Your task to perform on an android device: Set the phone to "Do not disturb". Image 0: 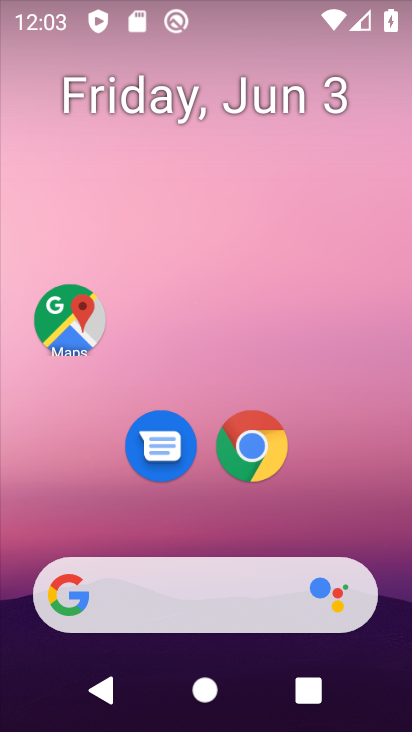
Step 0: drag from (269, 692) to (212, 141)
Your task to perform on an android device: Set the phone to "Do not disturb". Image 1: 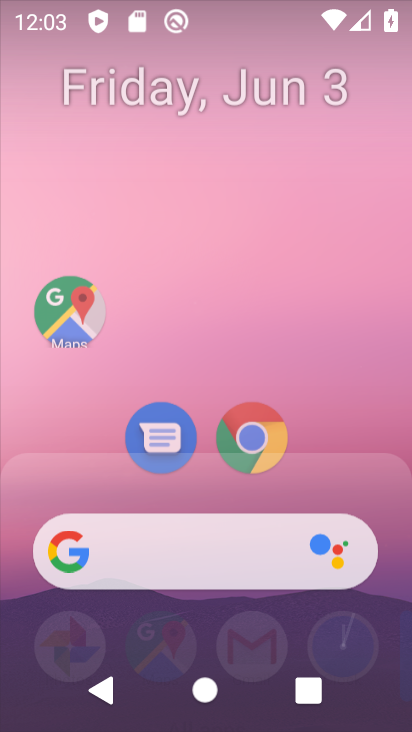
Step 1: drag from (260, 539) to (244, 149)
Your task to perform on an android device: Set the phone to "Do not disturb". Image 2: 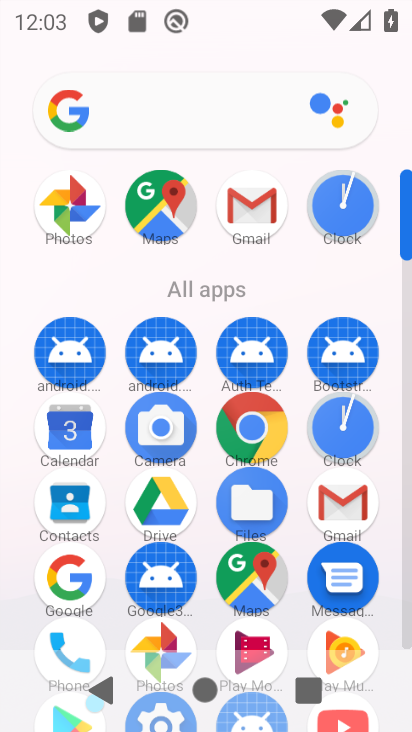
Step 2: drag from (254, 549) to (201, 160)
Your task to perform on an android device: Set the phone to "Do not disturb". Image 3: 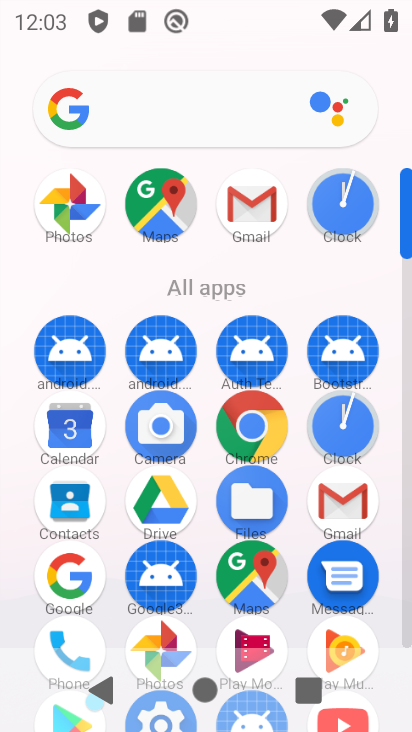
Step 3: drag from (264, 559) to (228, 224)
Your task to perform on an android device: Set the phone to "Do not disturb". Image 4: 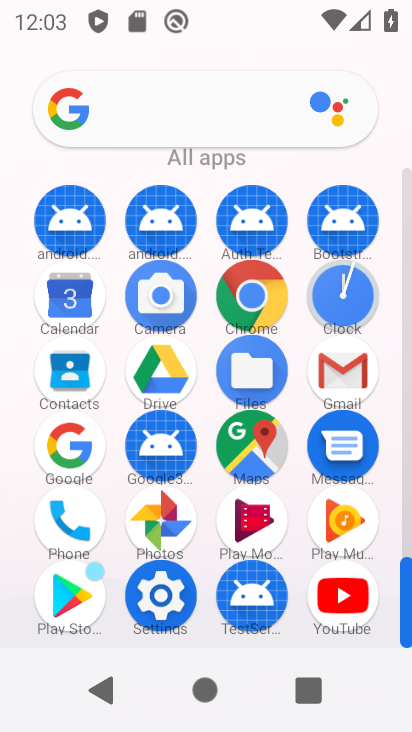
Step 4: drag from (305, 522) to (229, 173)
Your task to perform on an android device: Set the phone to "Do not disturb". Image 5: 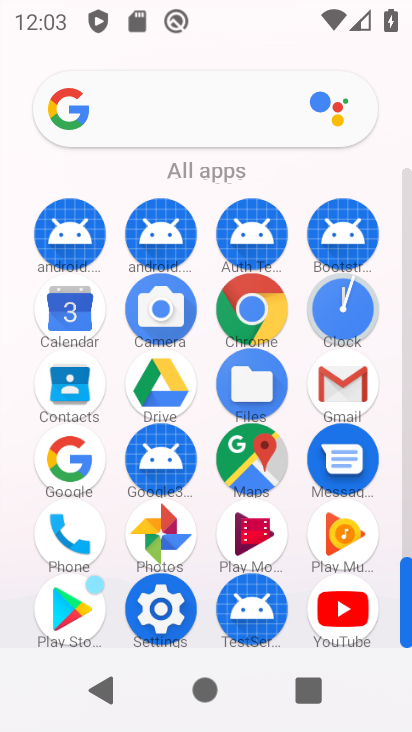
Step 5: click (160, 595)
Your task to perform on an android device: Set the phone to "Do not disturb". Image 6: 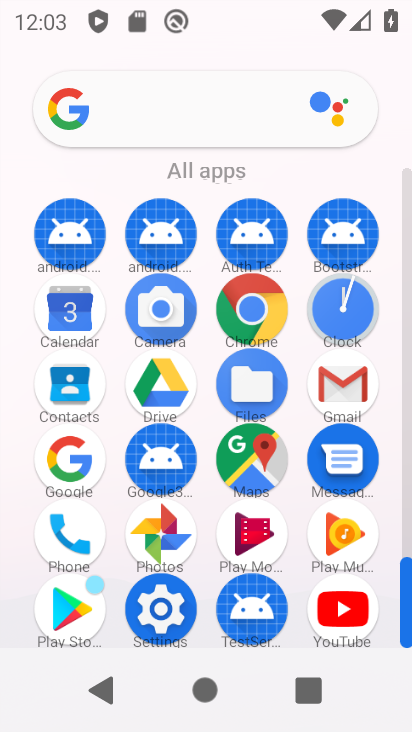
Step 6: click (160, 595)
Your task to perform on an android device: Set the phone to "Do not disturb". Image 7: 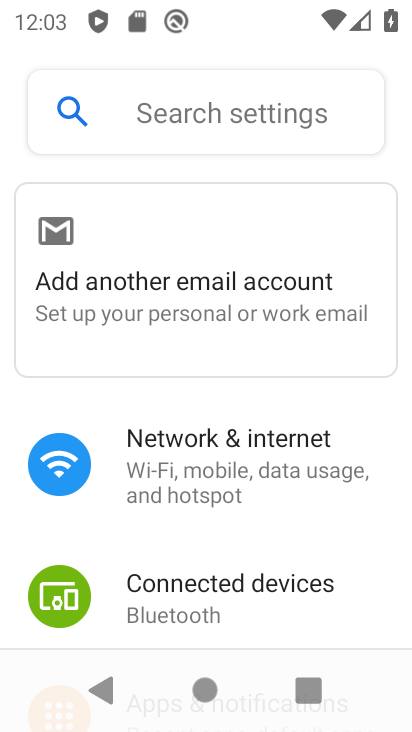
Step 7: drag from (229, 424) to (212, 143)
Your task to perform on an android device: Set the phone to "Do not disturb". Image 8: 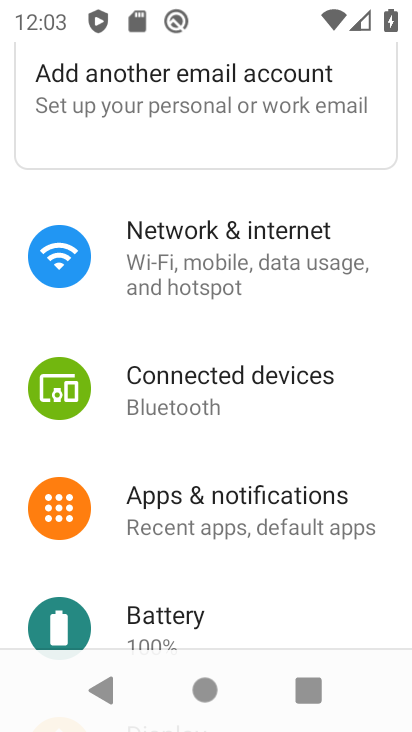
Step 8: drag from (174, 412) to (193, 246)
Your task to perform on an android device: Set the phone to "Do not disturb". Image 9: 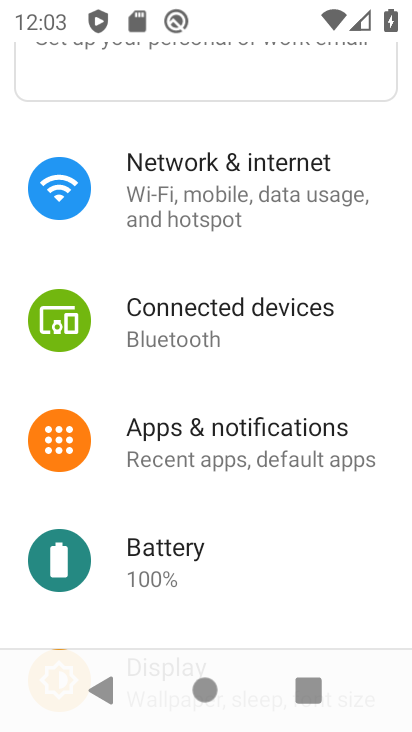
Step 9: drag from (193, 462) to (186, 359)
Your task to perform on an android device: Set the phone to "Do not disturb". Image 10: 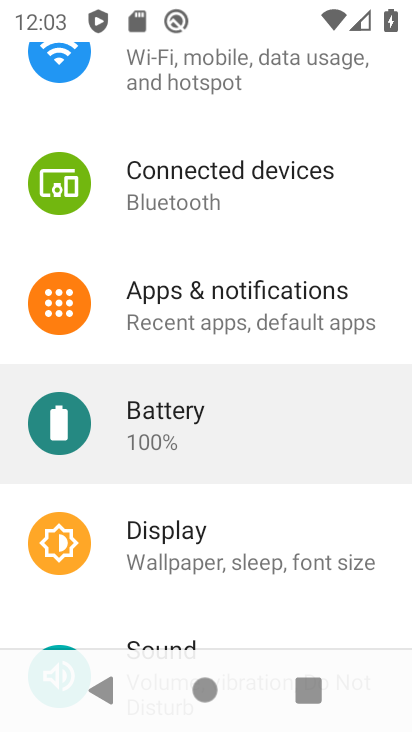
Step 10: drag from (153, 470) to (177, 259)
Your task to perform on an android device: Set the phone to "Do not disturb". Image 11: 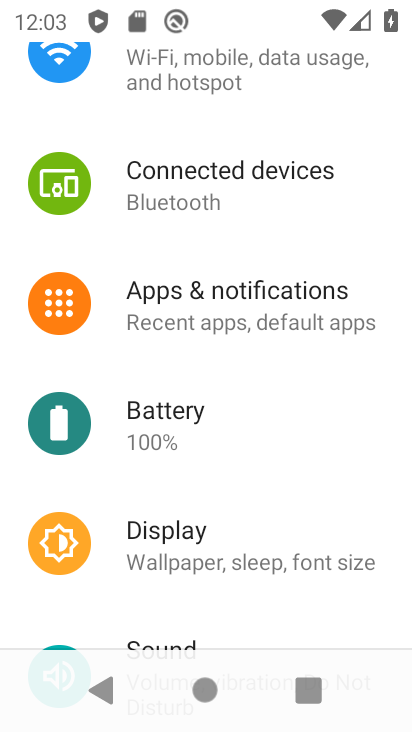
Step 11: drag from (242, 398) to (248, 232)
Your task to perform on an android device: Set the phone to "Do not disturb". Image 12: 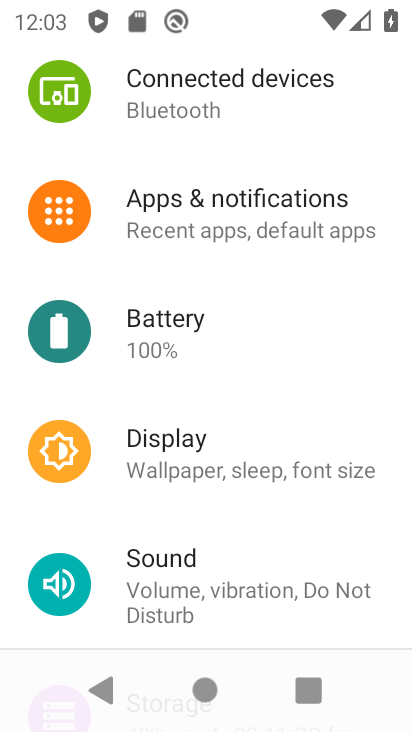
Step 12: drag from (237, 441) to (243, 182)
Your task to perform on an android device: Set the phone to "Do not disturb". Image 13: 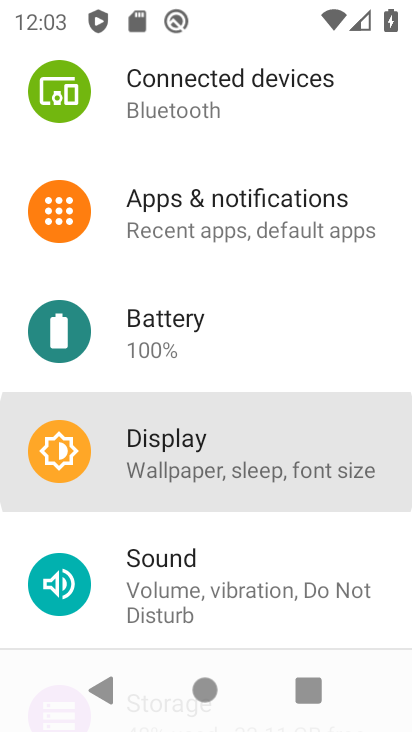
Step 13: drag from (235, 375) to (247, 235)
Your task to perform on an android device: Set the phone to "Do not disturb". Image 14: 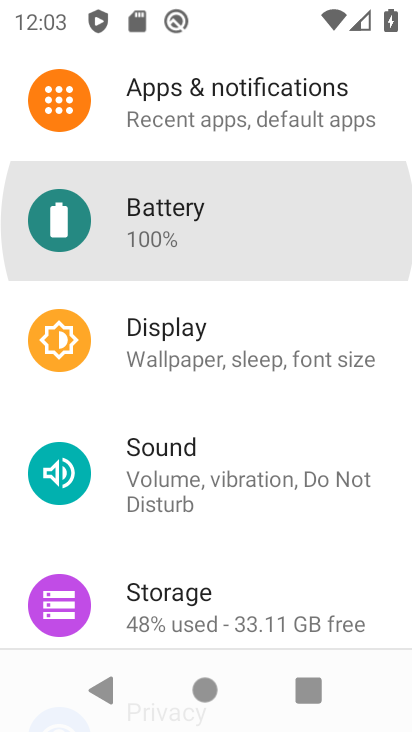
Step 14: drag from (219, 397) to (210, 240)
Your task to perform on an android device: Set the phone to "Do not disturb". Image 15: 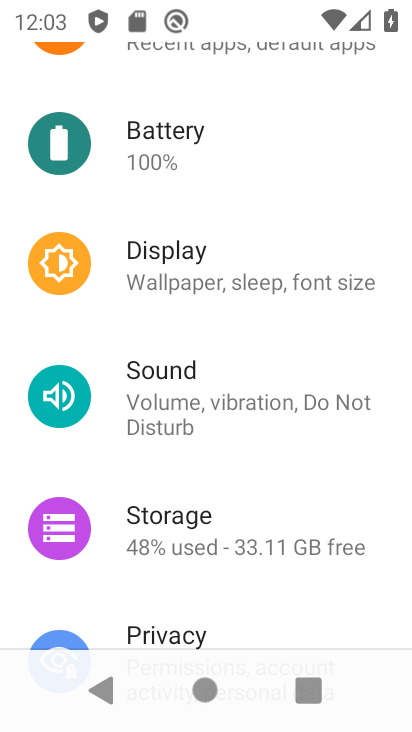
Step 15: click (162, 420)
Your task to perform on an android device: Set the phone to "Do not disturb". Image 16: 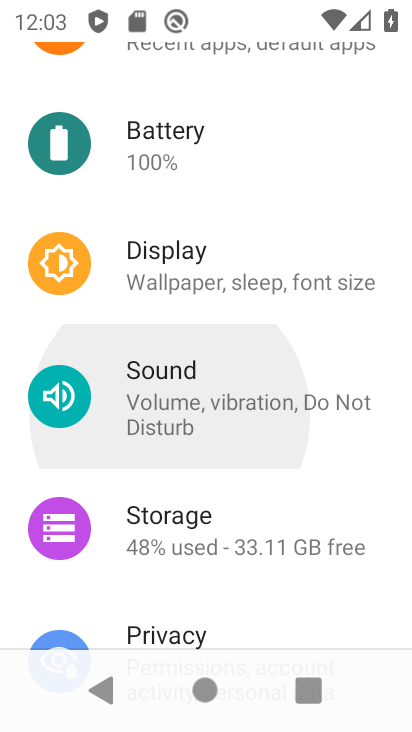
Step 16: click (163, 420)
Your task to perform on an android device: Set the phone to "Do not disturb". Image 17: 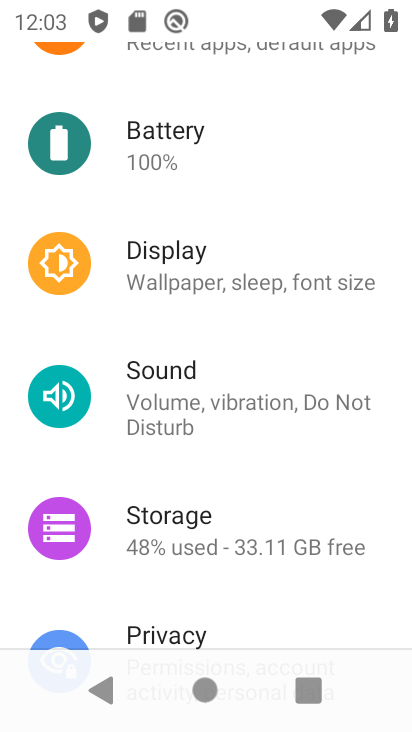
Step 17: click (163, 420)
Your task to perform on an android device: Set the phone to "Do not disturb". Image 18: 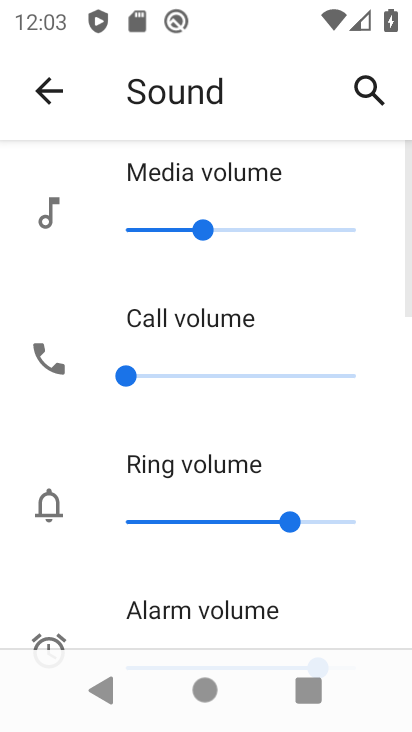
Step 18: drag from (179, 612) to (178, 203)
Your task to perform on an android device: Set the phone to "Do not disturb". Image 19: 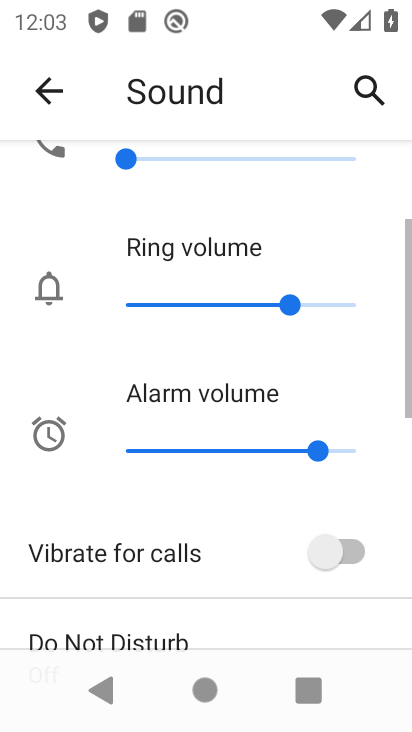
Step 19: drag from (201, 515) to (202, 245)
Your task to perform on an android device: Set the phone to "Do not disturb". Image 20: 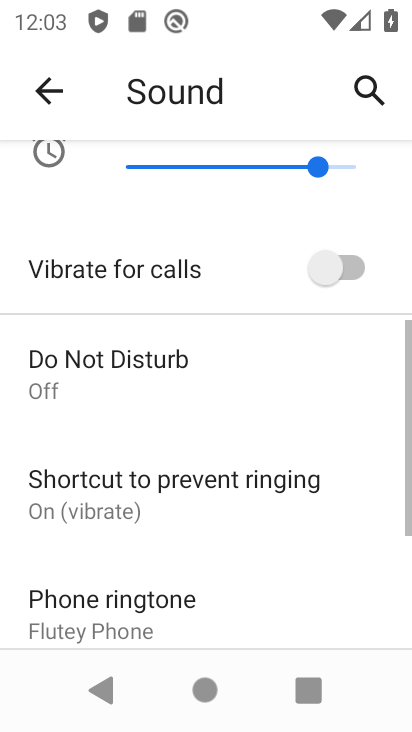
Step 20: drag from (193, 437) to (196, 211)
Your task to perform on an android device: Set the phone to "Do not disturb". Image 21: 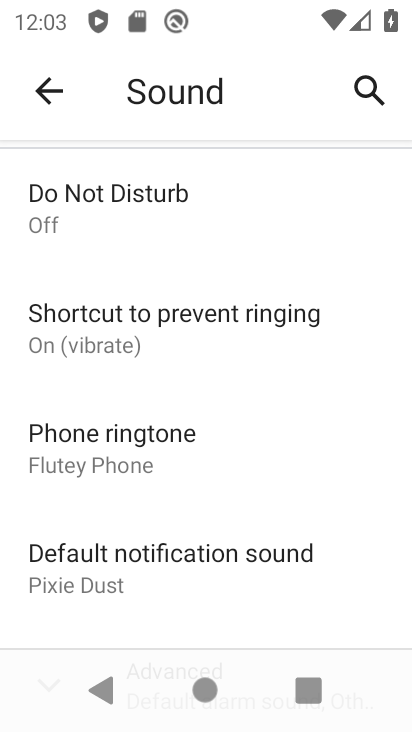
Step 21: click (45, 211)
Your task to perform on an android device: Set the phone to "Do not disturb". Image 22: 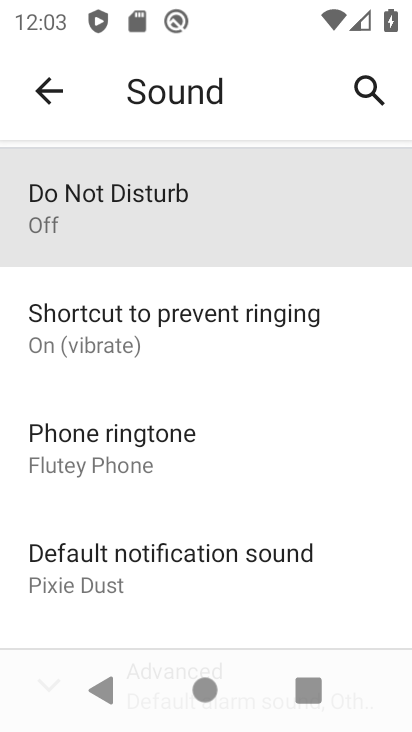
Step 22: click (45, 211)
Your task to perform on an android device: Set the phone to "Do not disturb". Image 23: 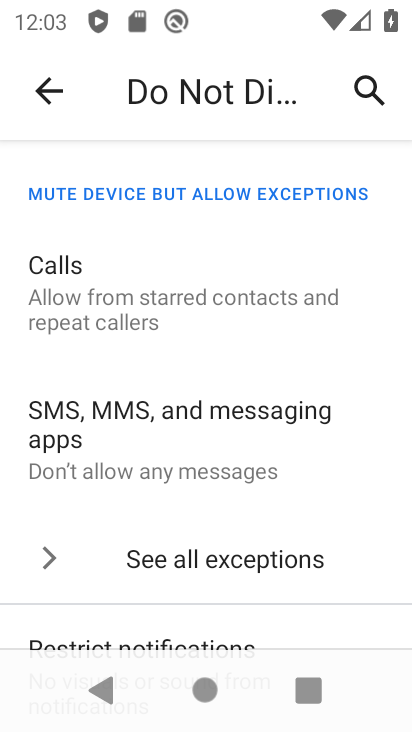
Step 23: drag from (197, 401) to (206, 227)
Your task to perform on an android device: Set the phone to "Do not disturb". Image 24: 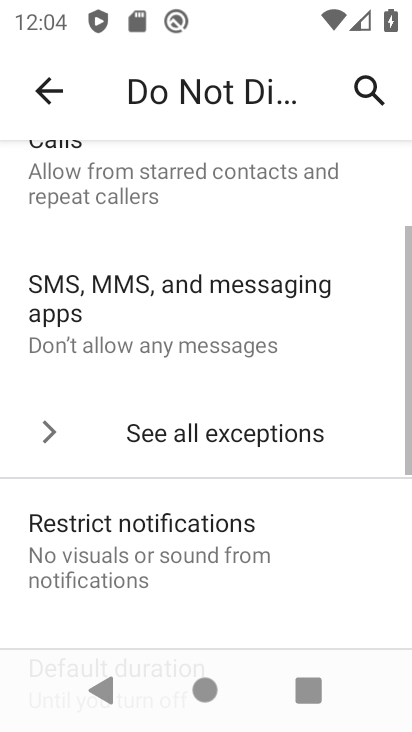
Step 24: drag from (192, 421) to (206, 143)
Your task to perform on an android device: Set the phone to "Do not disturb". Image 25: 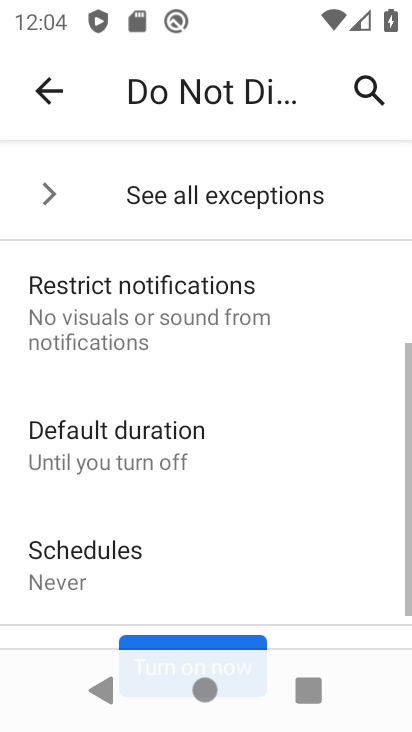
Step 25: drag from (187, 415) to (200, 201)
Your task to perform on an android device: Set the phone to "Do not disturb". Image 26: 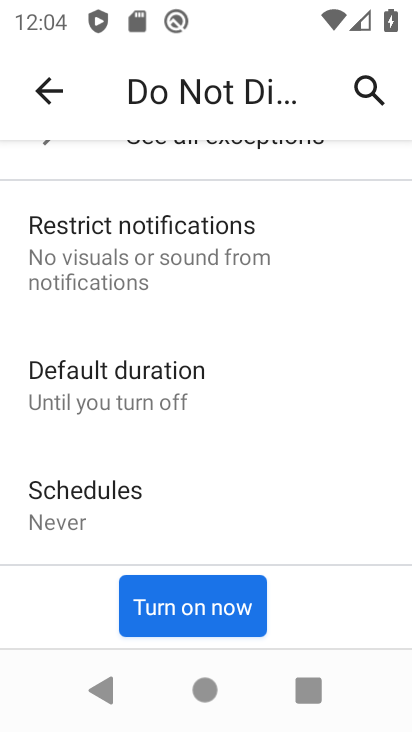
Step 26: click (213, 604)
Your task to perform on an android device: Set the phone to "Do not disturb". Image 27: 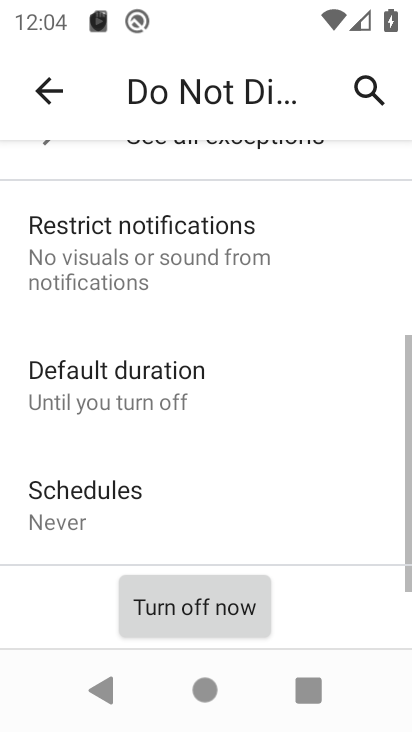
Step 27: click (213, 604)
Your task to perform on an android device: Set the phone to "Do not disturb". Image 28: 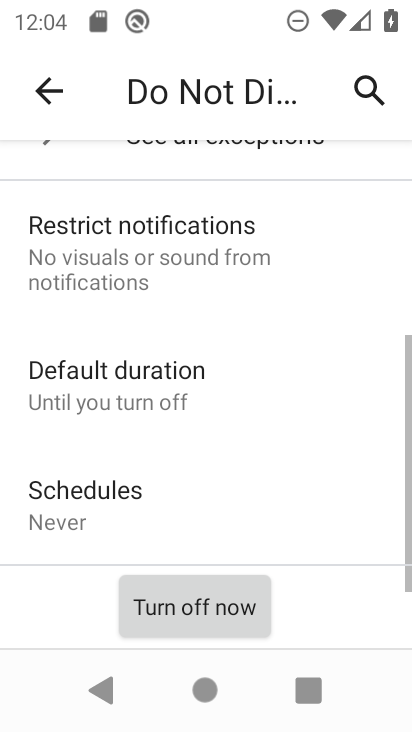
Step 28: click (213, 604)
Your task to perform on an android device: Set the phone to "Do not disturb". Image 29: 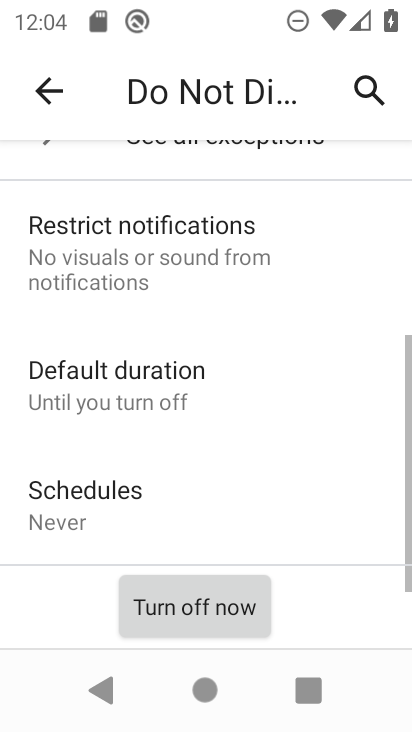
Step 29: click (221, 589)
Your task to perform on an android device: Set the phone to "Do not disturb". Image 30: 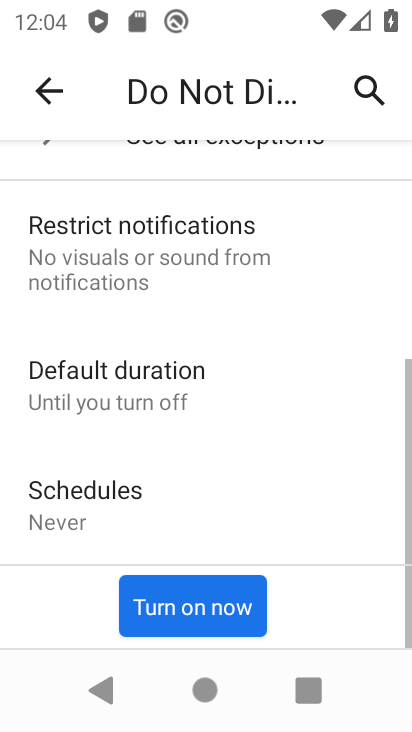
Step 30: click (203, 606)
Your task to perform on an android device: Set the phone to "Do not disturb". Image 31: 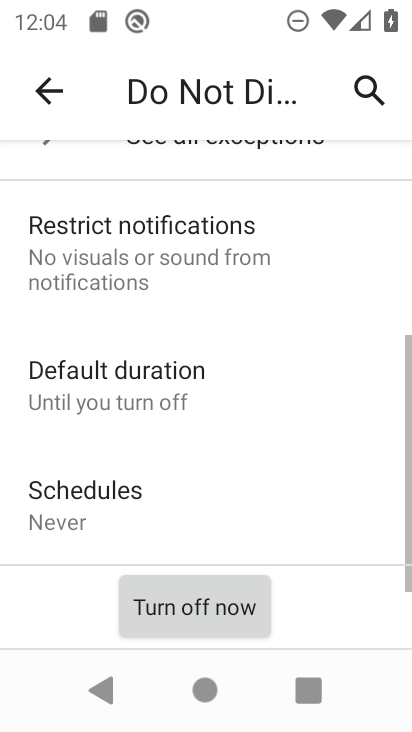
Step 31: task complete